Your task to perform on an android device: change keyboard looks Image 0: 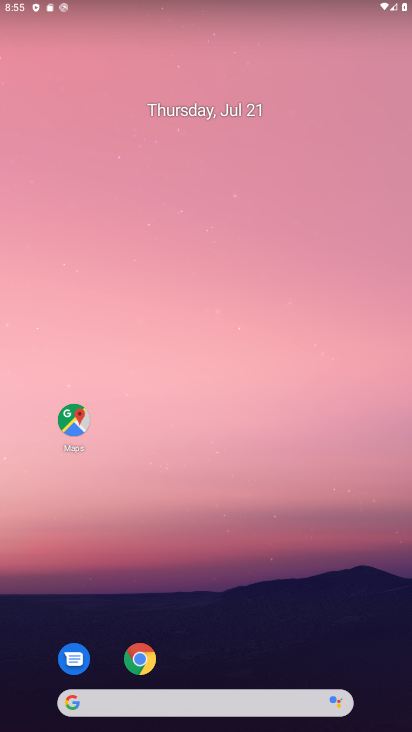
Step 0: drag from (205, 675) to (184, 16)
Your task to perform on an android device: change keyboard looks Image 1: 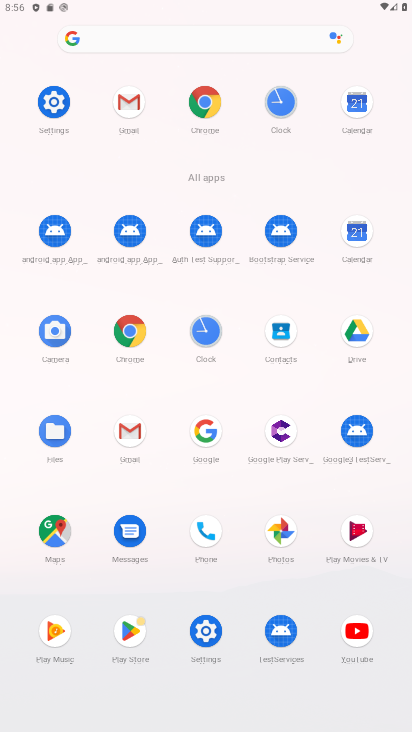
Step 1: click (67, 106)
Your task to perform on an android device: change keyboard looks Image 2: 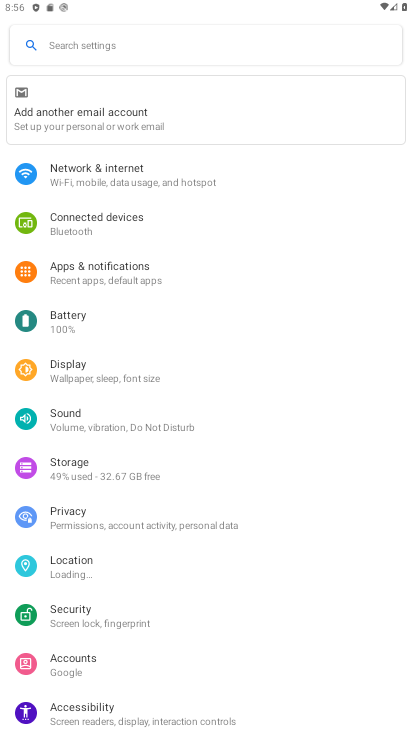
Step 2: drag from (184, 651) to (81, 131)
Your task to perform on an android device: change keyboard looks Image 3: 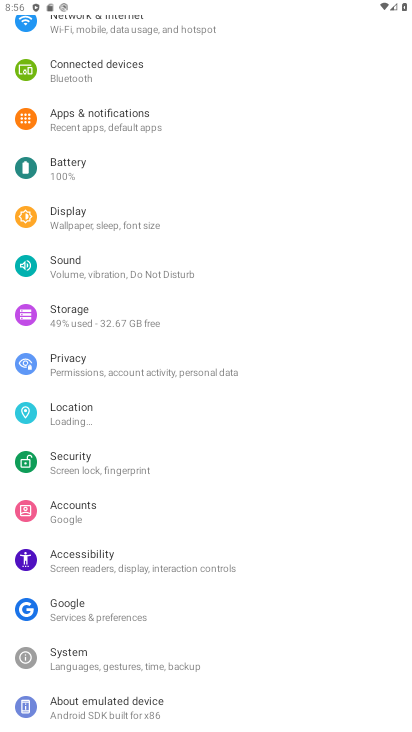
Step 3: click (74, 645)
Your task to perform on an android device: change keyboard looks Image 4: 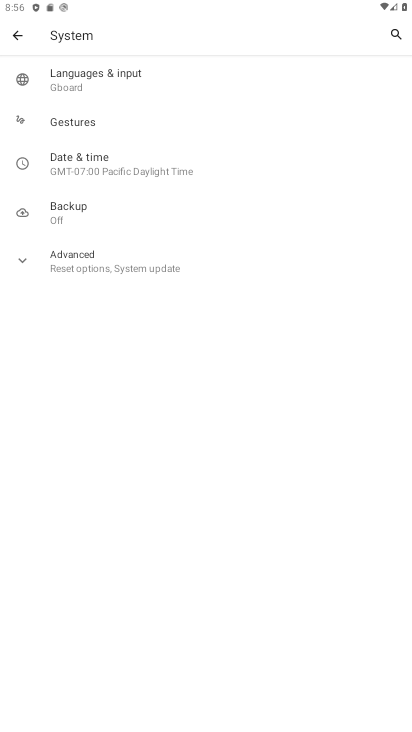
Step 4: click (61, 87)
Your task to perform on an android device: change keyboard looks Image 5: 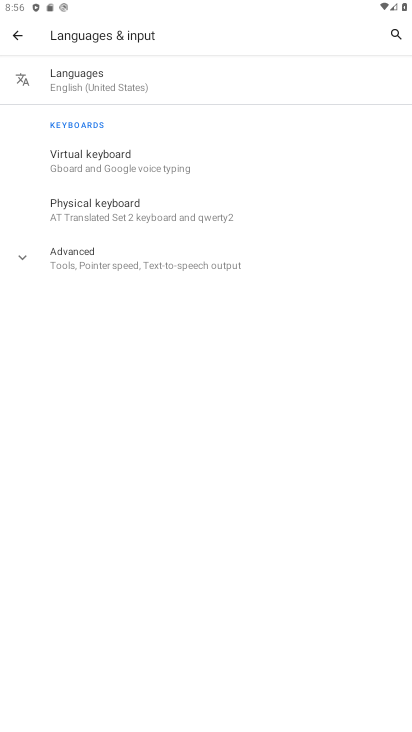
Step 5: click (61, 84)
Your task to perform on an android device: change keyboard looks Image 6: 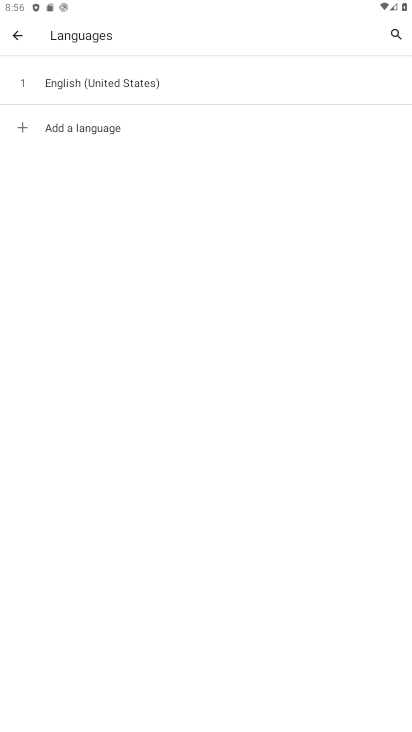
Step 6: click (26, 32)
Your task to perform on an android device: change keyboard looks Image 7: 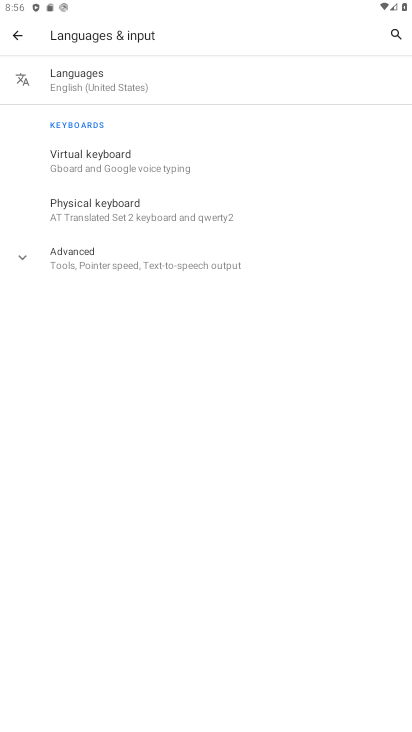
Step 7: click (86, 154)
Your task to perform on an android device: change keyboard looks Image 8: 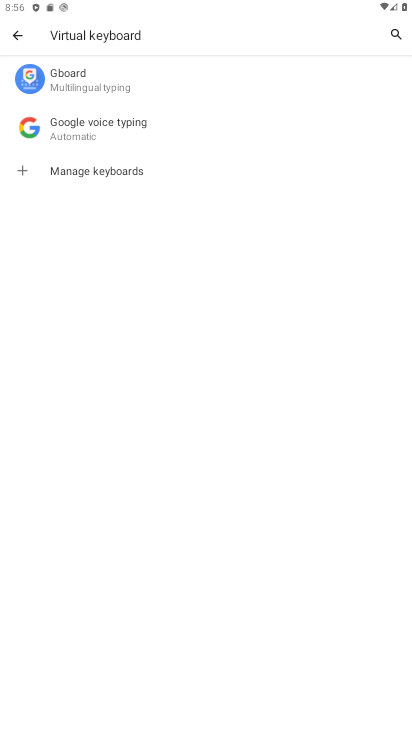
Step 8: click (57, 91)
Your task to perform on an android device: change keyboard looks Image 9: 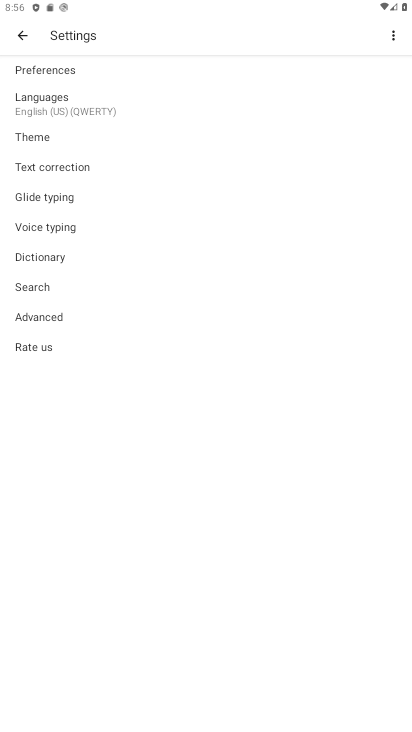
Step 9: click (37, 135)
Your task to perform on an android device: change keyboard looks Image 10: 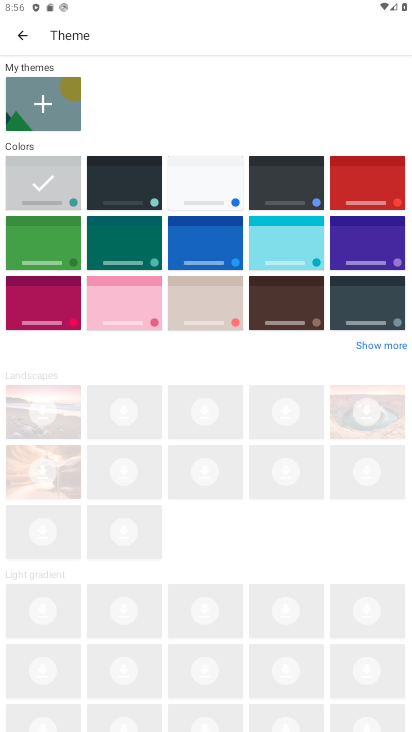
Step 10: click (115, 186)
Your task to perform on an android device: change keyboard looks Image 11: 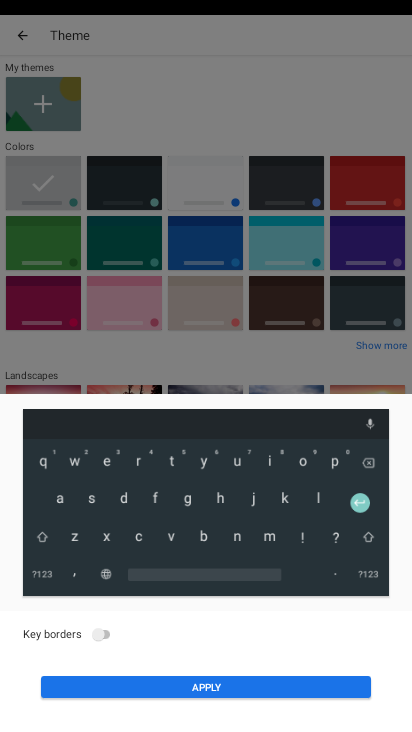
Step 11: click (271, 683)
Your task to perform on an android device: change keyboard looks Image 12: 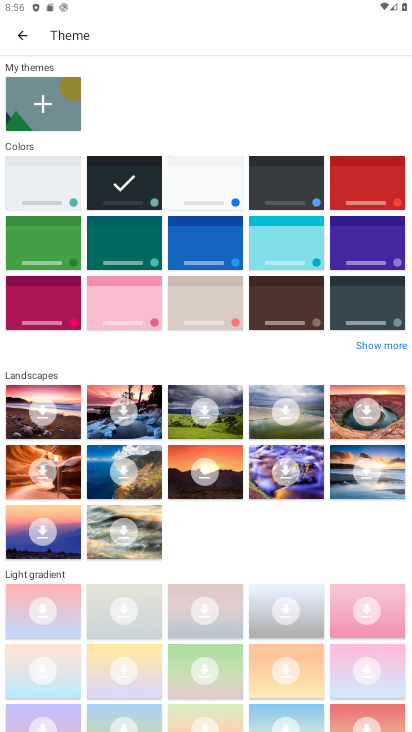
Step 12: task complete